Your task to perform on an android device: Open Reddit.com Image 0: 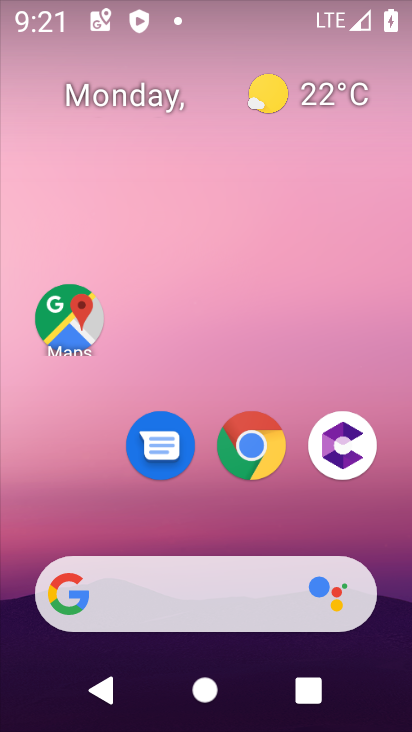
Step 0: click (55, 610)
Your task to perform on an android device: Open Reddit.com Image 1: 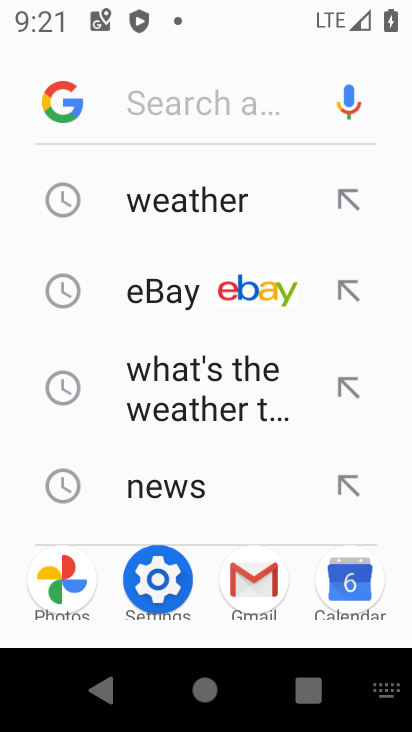
Step 1: type "Reddit.com"
Your task to perform on an android device: Open Reddit.com Image 2: 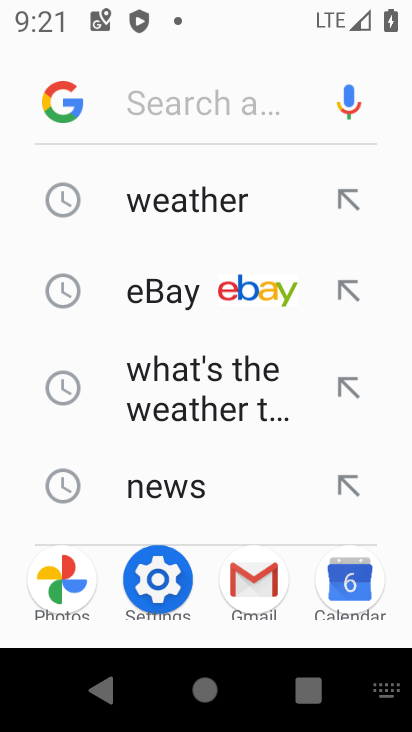
Step 2: click (200, 105)
Your task to perform on an android device: Open Reddit.com Image 3: 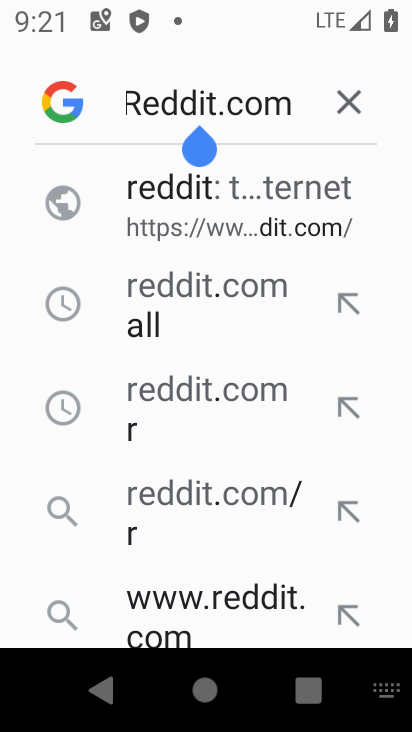
Step 3: click (187, 183)
Your task to perform on an android device: Open Reddit.com Image 4: 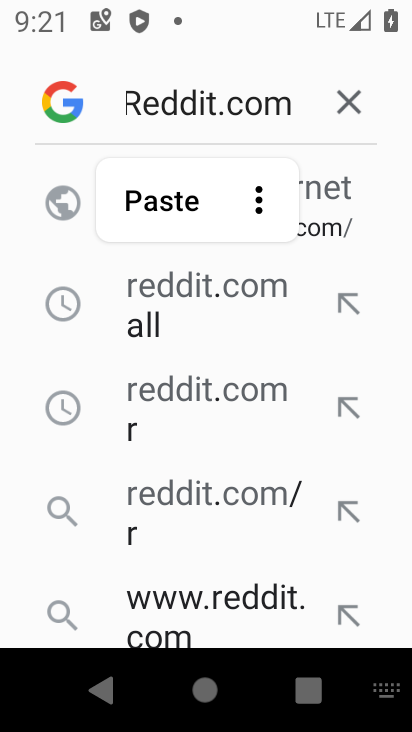
Step 4: click (292, 104)
Your task to perform on an android device: Open Reddit.com Image 5: 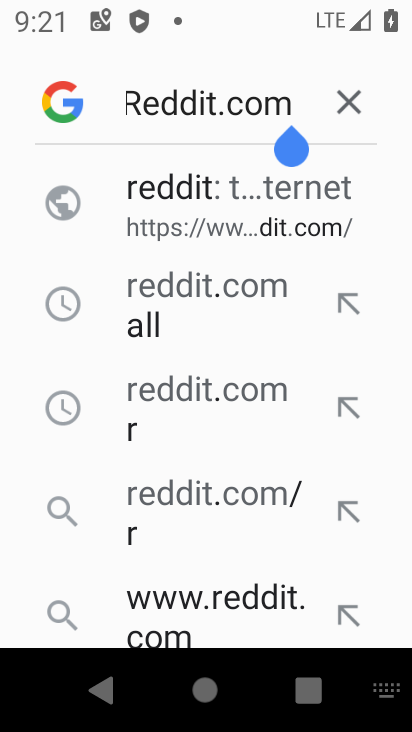
Step 5: click (189, 193)
Your task to perform on an android device: Open Reddit.com Image 6: 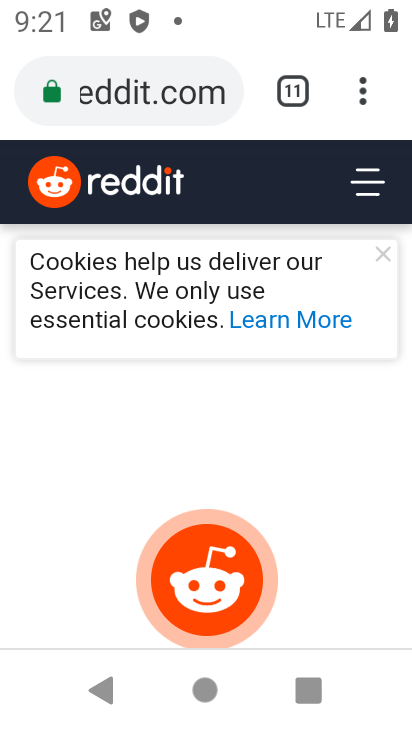
Step 6: task complete